Your task to perform on an android device: see sites visited before in the chrome app Image 0: 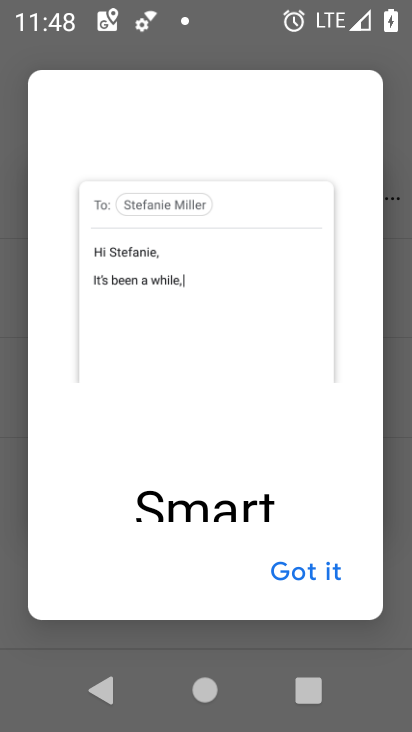
Step 0: press home button
Your task to perform on an android device: see sites visited before in the chrome app Image 1: 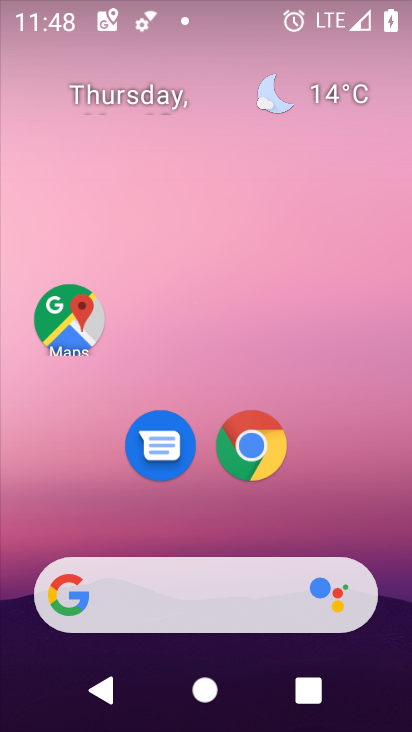
Step 1: drag from (212, 530) to (229, 174)
Your task to perform on an android device: see sites visited before in the chrome app Image 2: 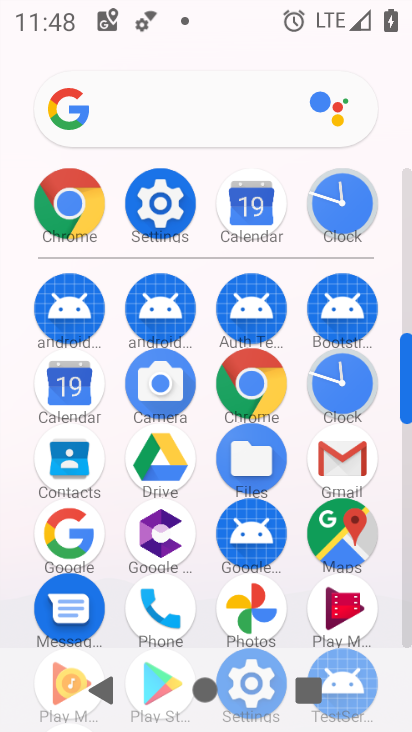
Step 2: click (251, 389)
Your task to perform on an android device: see sites visited before in the chrome app Image 3: 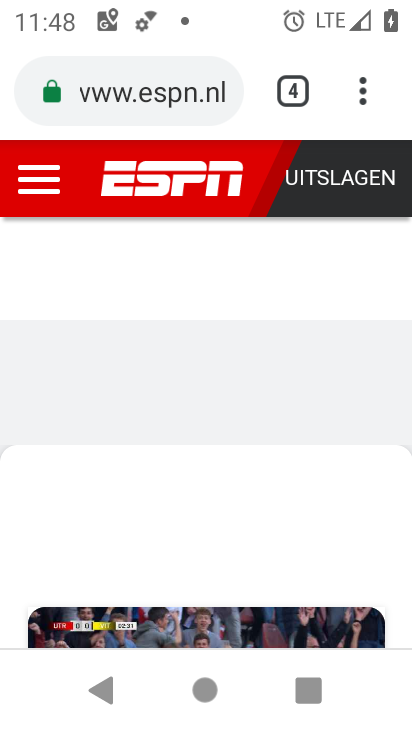
Step 3: click (357, 102)
Your task to perform on an android device: see sites visited before in the chrome app Image 4: 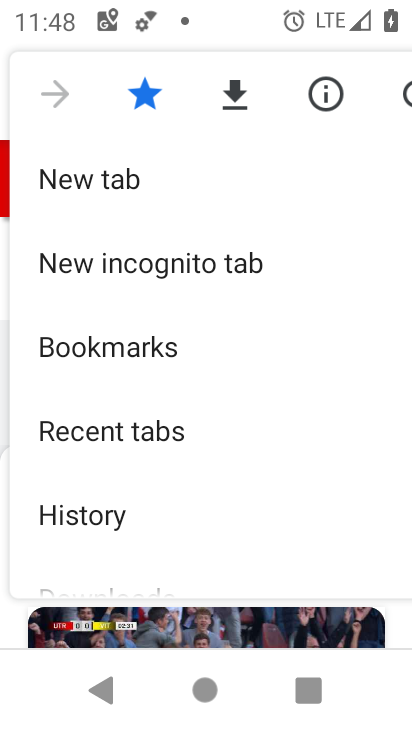
Step 4: click (167, 421)
Your task to perform on an android device: see sites visited before in the chrome app Image 5: 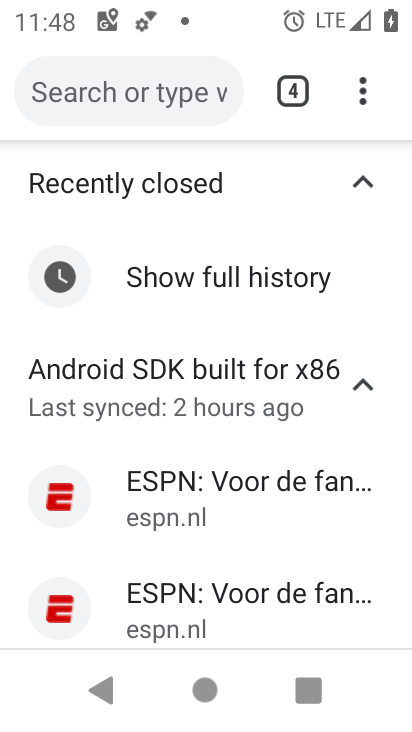
Step 5: task complete